Your task to perform on an android device: change notifications settings Image 0: 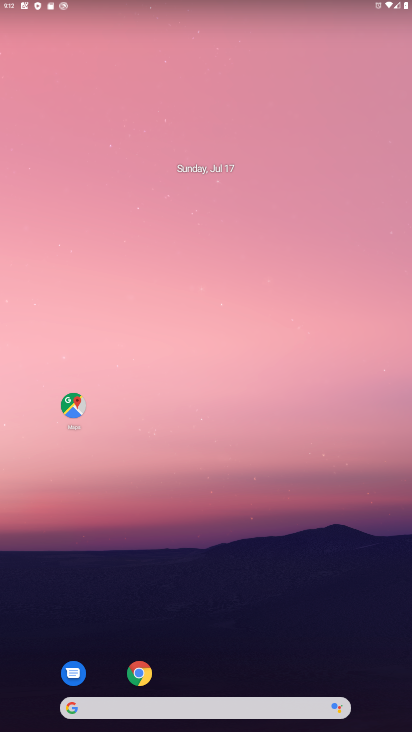
Step 0: drag from (299, 635) to (205, 99)
Your task to perform on an android device: change notifications settings Image 1: 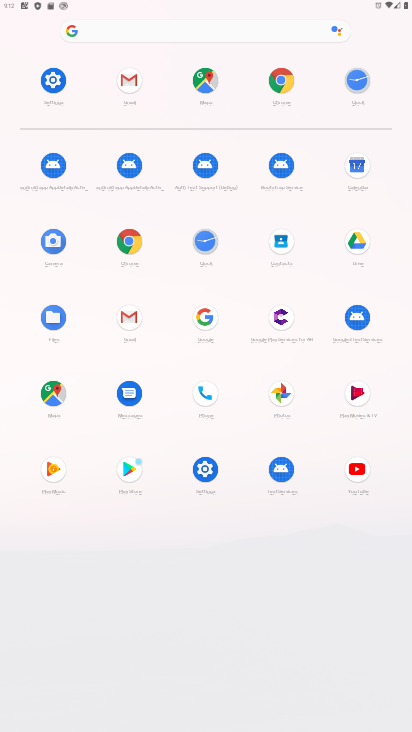
Step 1: click (59, 83)
Your task to perform on an android device: change notifications settings Image 2: 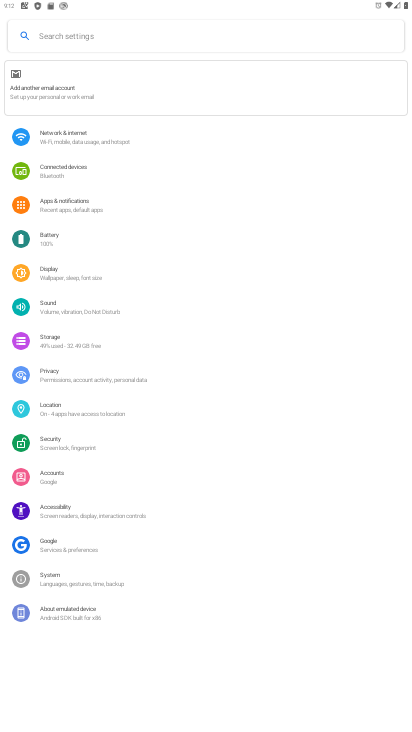
Step 2: click (54, 199)
Your task to perform on an android device: change notifications settings Image 3: 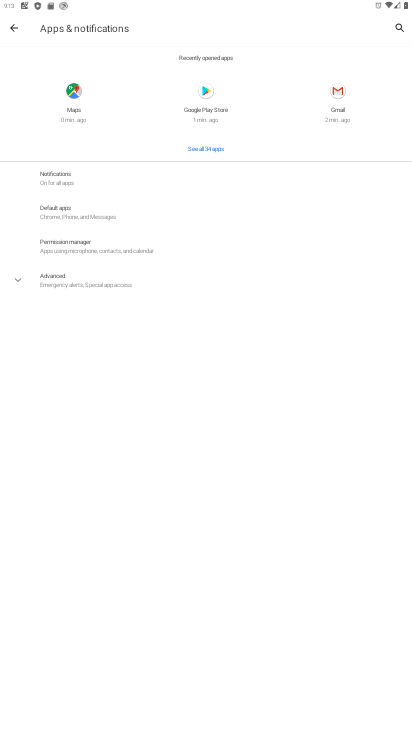
Step 3: click (70, 189)
Your task to perform on an android device: change notifications settings Image 4: 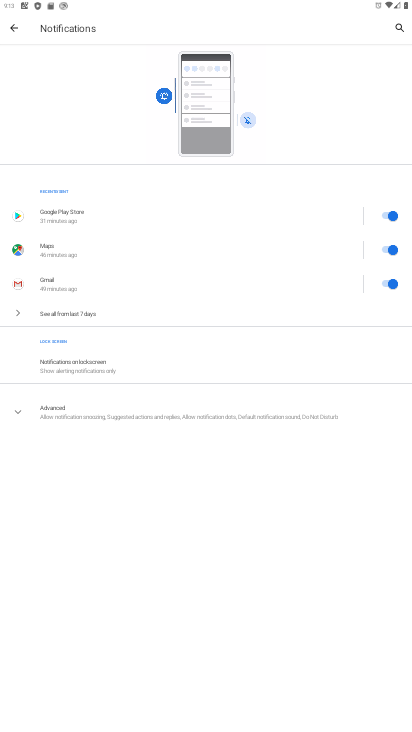
Step 4: click (90, 419)
Your task to perform on an android device: change notifications settings Image 5: 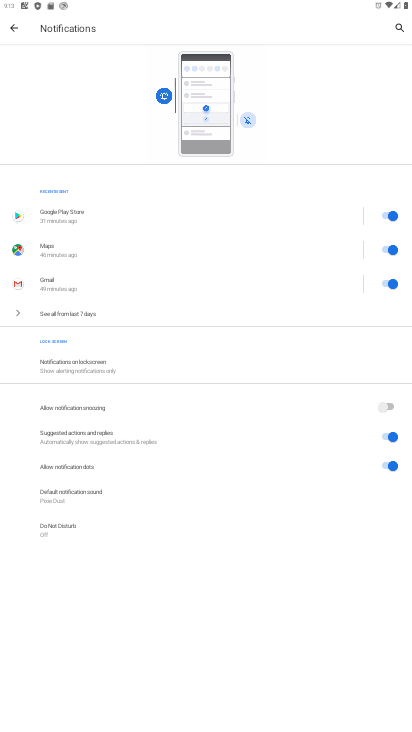
Step 5: click (382, 408)
Your task to perform on an android device: change notifications settings Image 6: 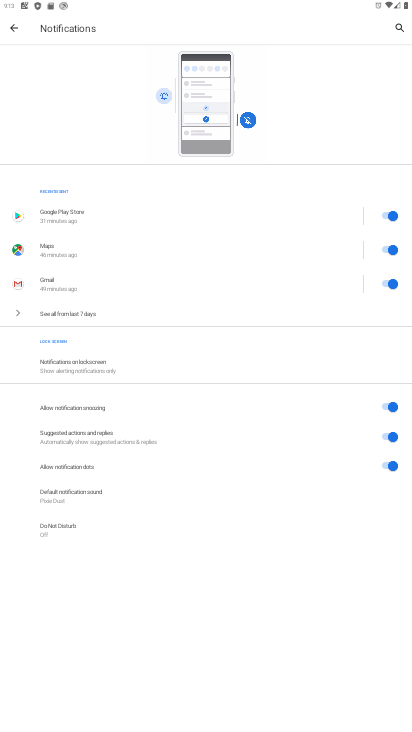
Step 6: task complete